Your task to perform on an android device: Open Maps and search for coffee Image 0: 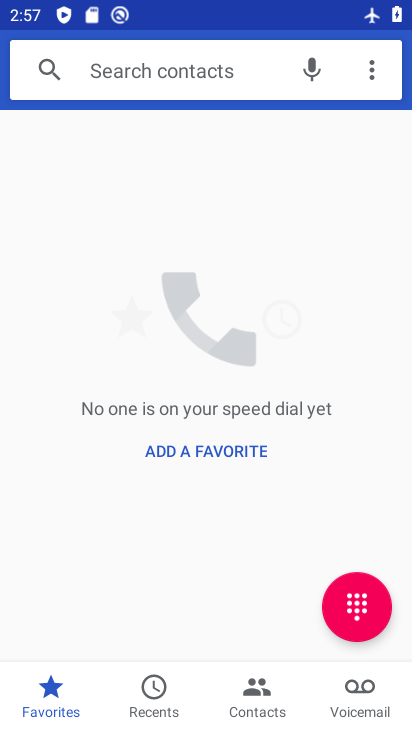
Step 0: press home button
Your task to perform on an android device: Open Maps and search for coffee Image 1: 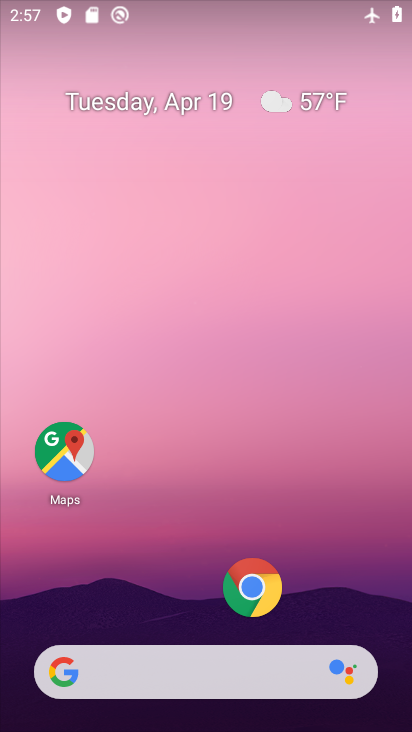
Step 1: click (230, 678)
Your task to perform on an android device: Open Maps and search for coffee Image 2: 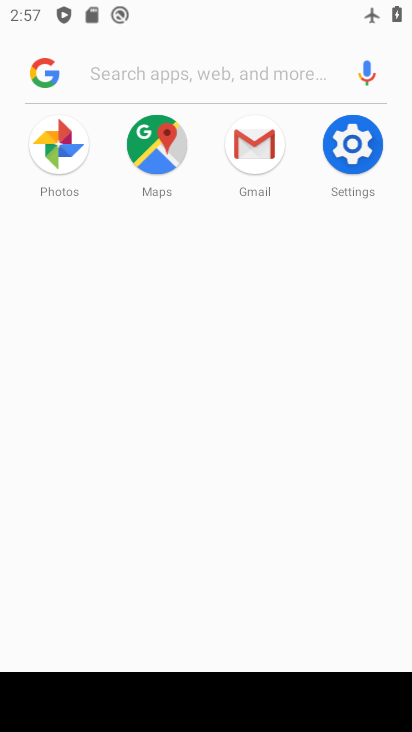
Step 2: type "news today"
Your task to perform on an android device: Open Maps and search for coffee Image 3: 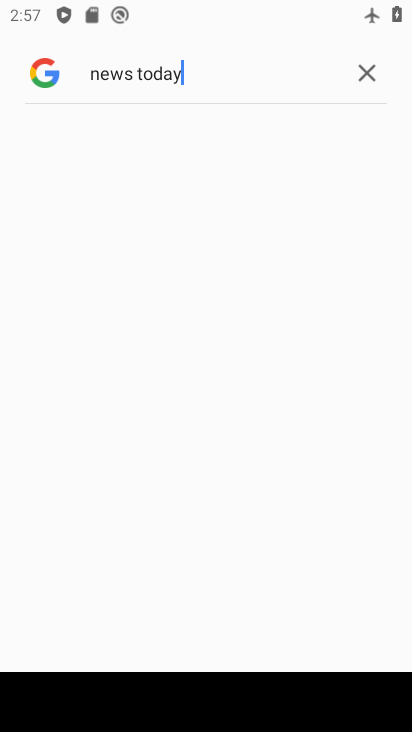
Step 3: task complete